Your task to perform on an android device: check the backup settings in the google photos Image 0: 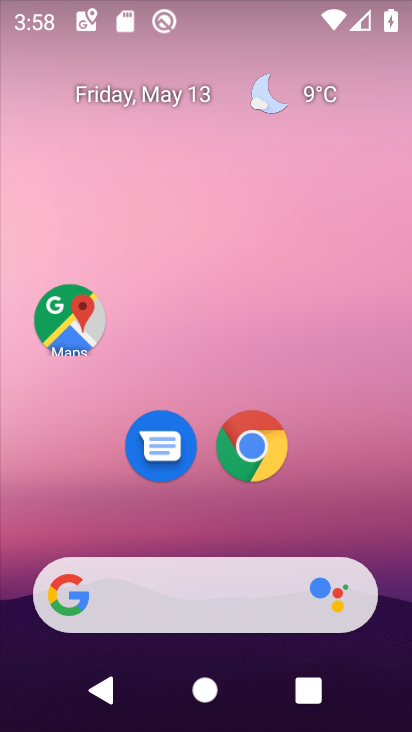
Step 0: drag from (201, 537) to (231, 34)
Your task to perform on an android device: check the backup settings in the google photos Image 1: 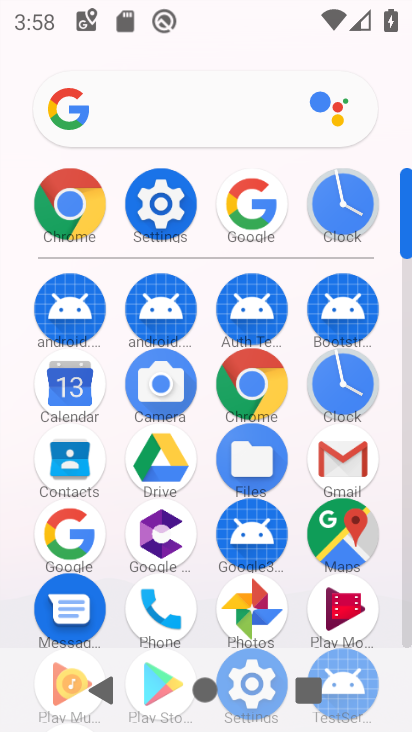
Step 1: click (248, 608)
Your task to perform on an android device: check the backup settings in the google photos Image 2: 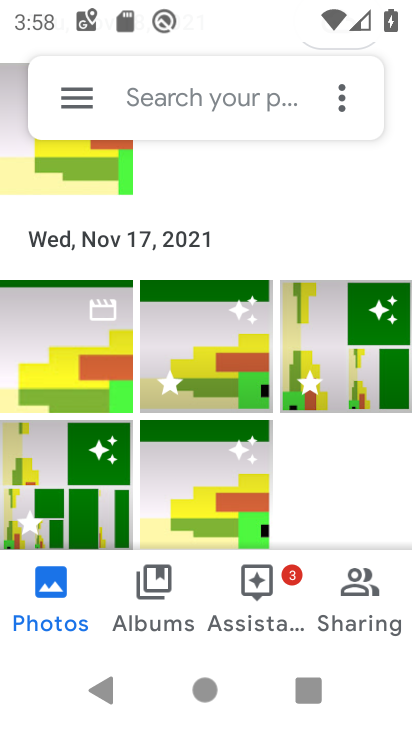
Step 2: click (73, 94)
Your task to perform on an android device: check the backup settings in the google photos Image 3: 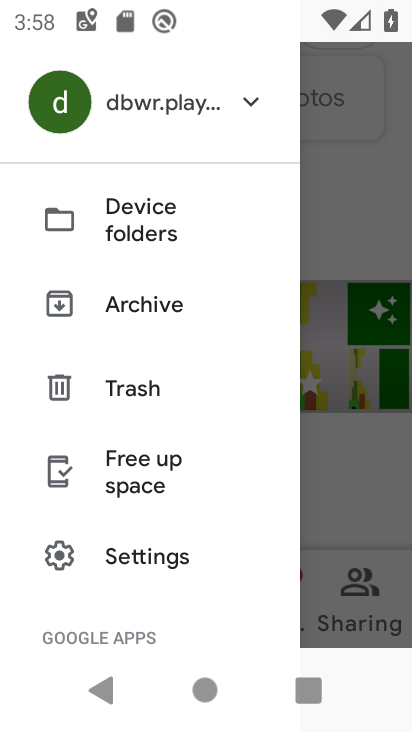
Step 3: click (137, 554)
Your task to perform on an android device: check the backup settings in the google photos Image 4: 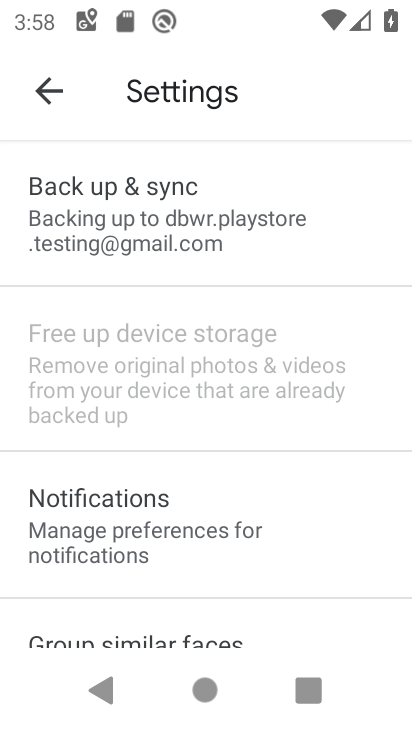
Step 4: click (109, 229)
Your task to perform on an android device: check the backup settings in the google photos Image 5: 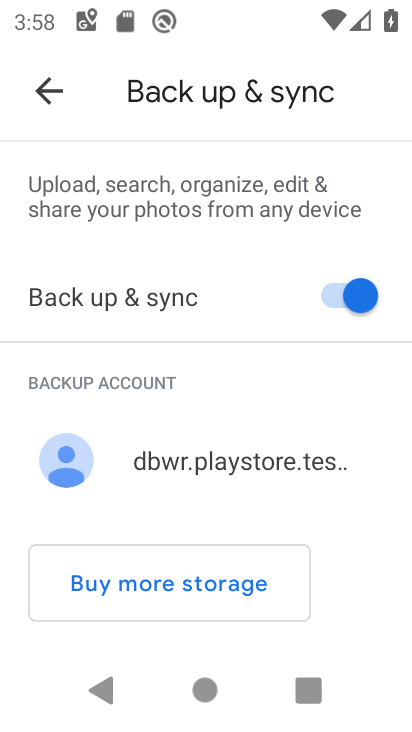
Step 5: task complete